Your task to perform on an android device: Is it going to rain tomorrow? Image 0: 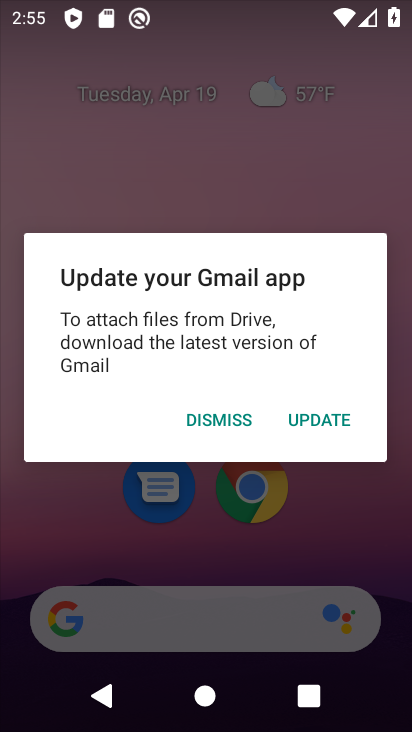
Step 0: press home button
Your task to perform on an android device: Is it going to rain tomorrow? Image 1: 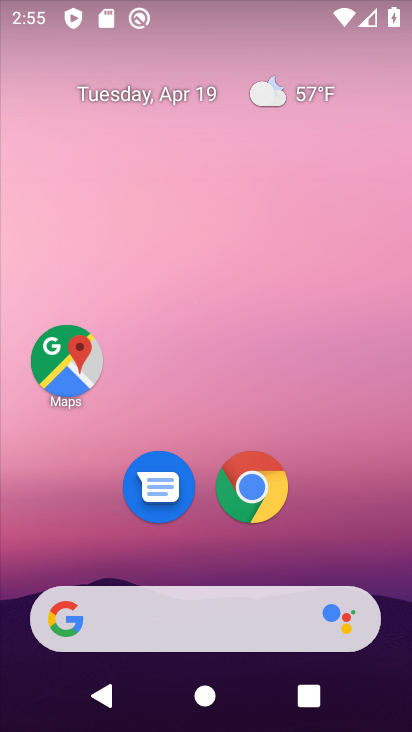
Step 1: click (273, 497)
Your task to perform on an android device: Is it going to rain tomorrow? Image 2: 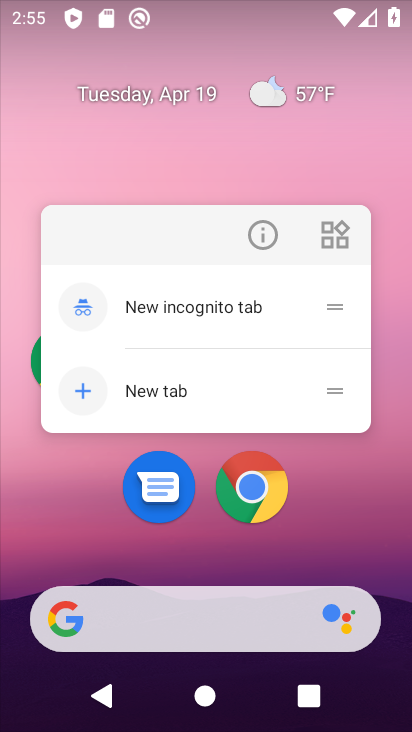
Step 2: click (273, 497)
Your task to perform on an android device: Is it going to rain tomorrow? Image 3: 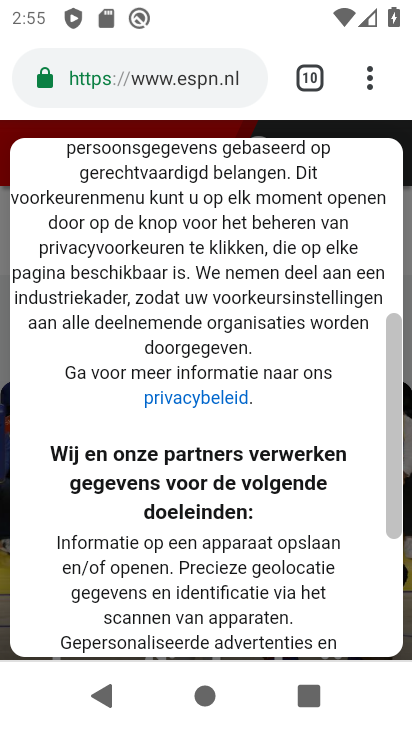
Step 3: click (317, 84)
Your task to perform on an android device: Is it going to rain tomorrow? Image 4: 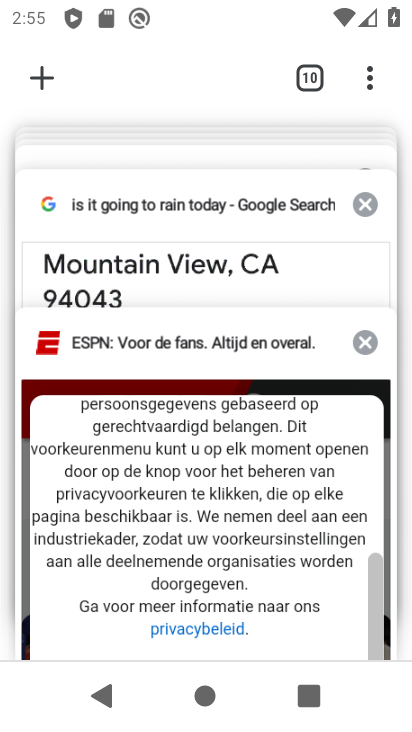
Step 4: click (53, 83)
Your task to perform on an android device: Is it going to rain tomorrow? Image 5: 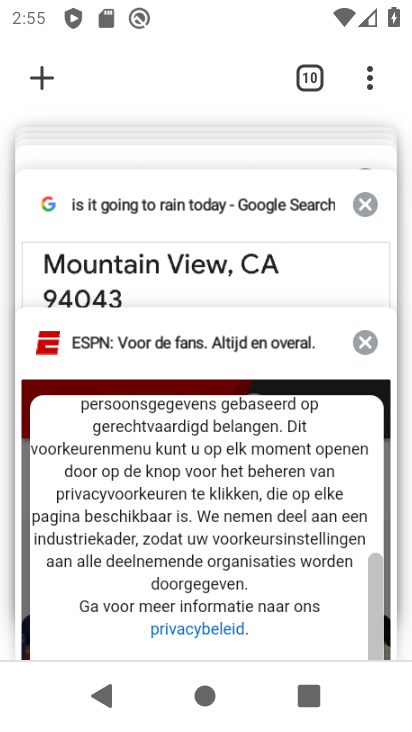
Step 5: click (32, 77)
Your task to perform on an android device: Is it going to rain tomorrow? Image 6: 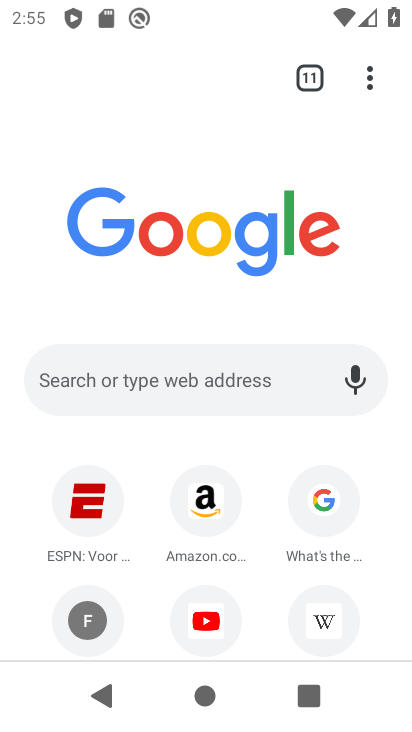
Step 6: click (143, 397)
Your task to perform on an android device: Is it going to rain tomorrow? Image 7: 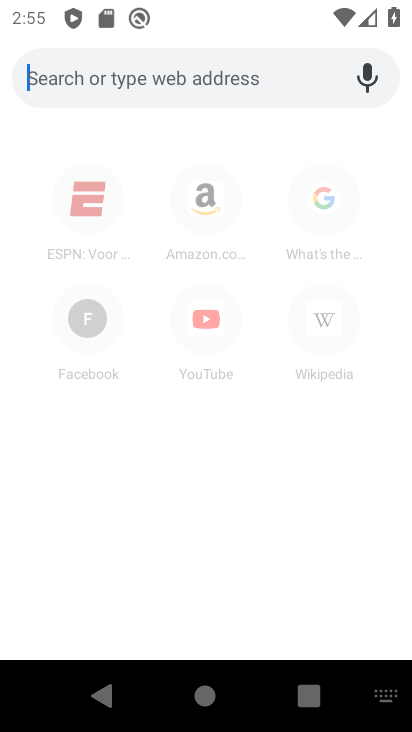
Step 7: type "is it going to rain tomorrow"
Your task to perform on an android device: Is it going to rain tomorrow? Image 8: 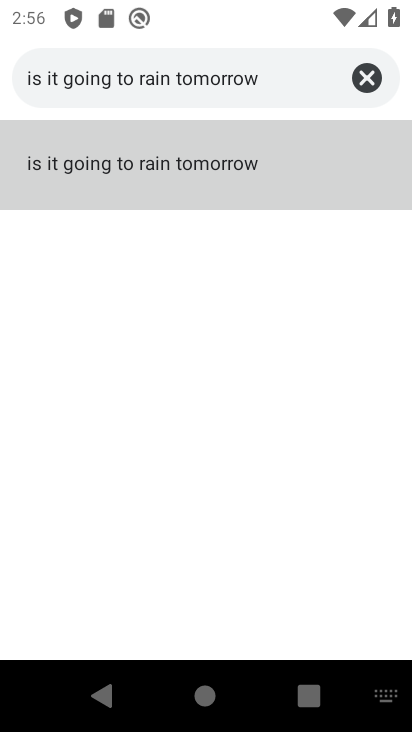
Step 8: click (200, 159)
Your task to perform on an android device: Is it going to rain tomorrow? Image 9: 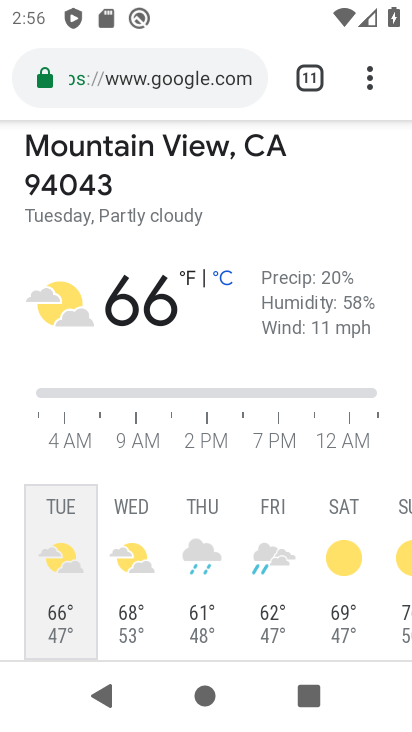
Step 9: task complete